Your task to perform on an android device: open sync settings in chrome Image 0: 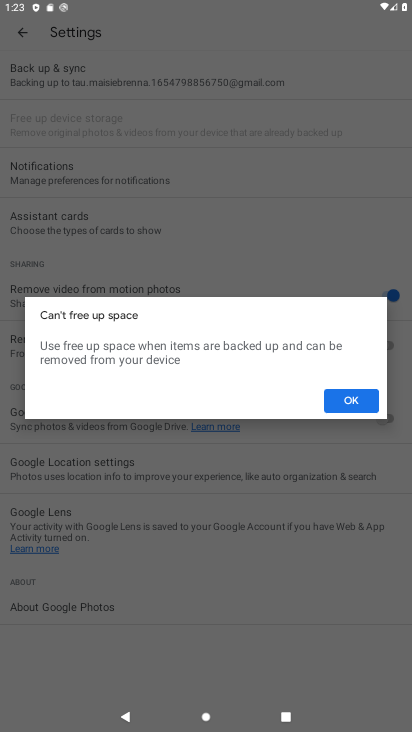
Step 0: click (358, 405)
Your task to perform on an android device: open sync settings in chrome Image 1: 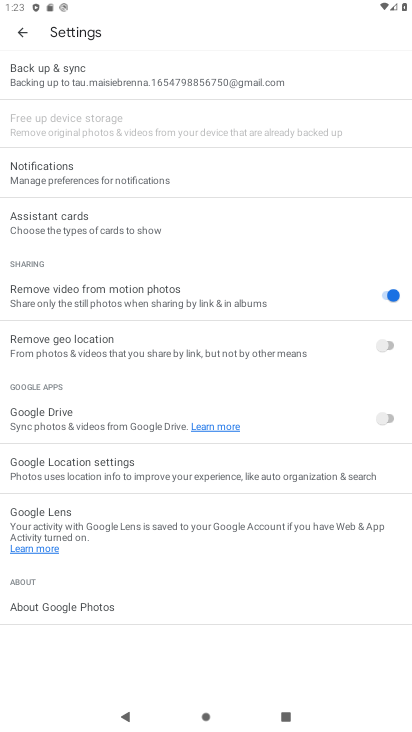
Step 1: press home button
Your task to perform on an android device: open sync settings in chrome Image 2: 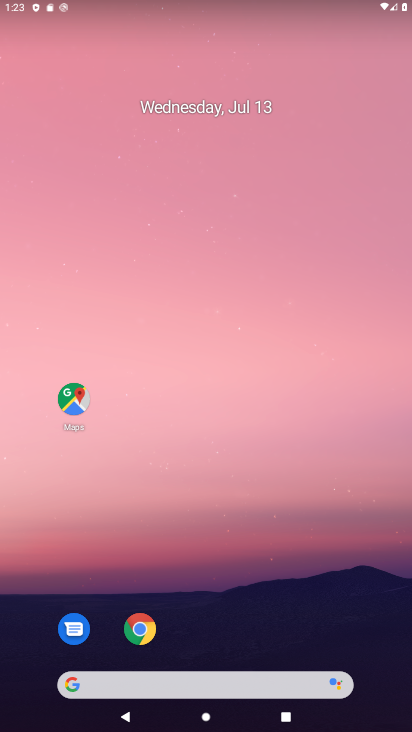
Step 2: drag from (323, 649) to (324, 133)
Your task to perform on an android device: open sync settings in chrome Image 3: 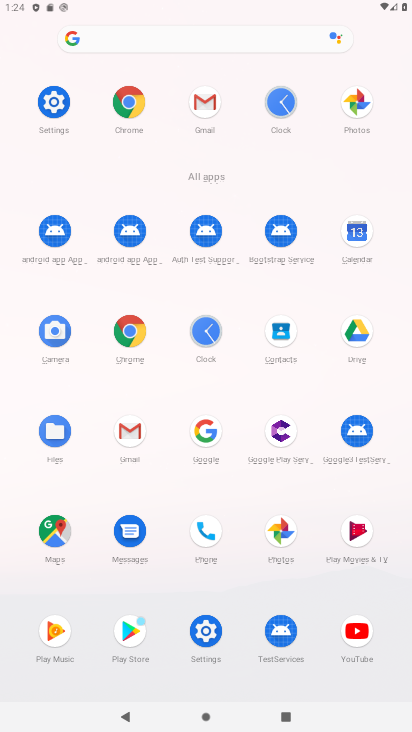
Step 3: click (121, 139)
Your task to perform on an android device: open sync settings in chrome Image 4: 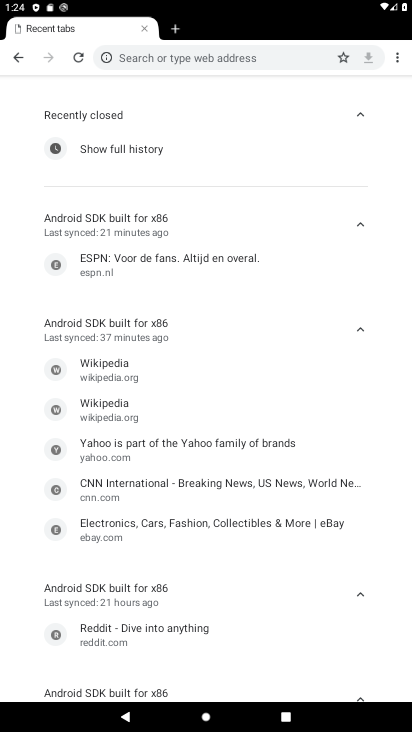
Step 4: click (391, 66)
Your task to perform on an android device: open sync settings in chrome Image 5: 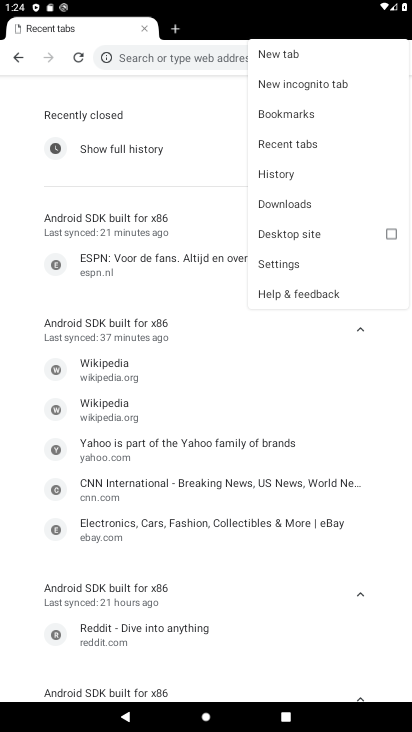
Step 5: click (270, 257)
Your task to perform on an android device: open sync settings in chrome Image 6: 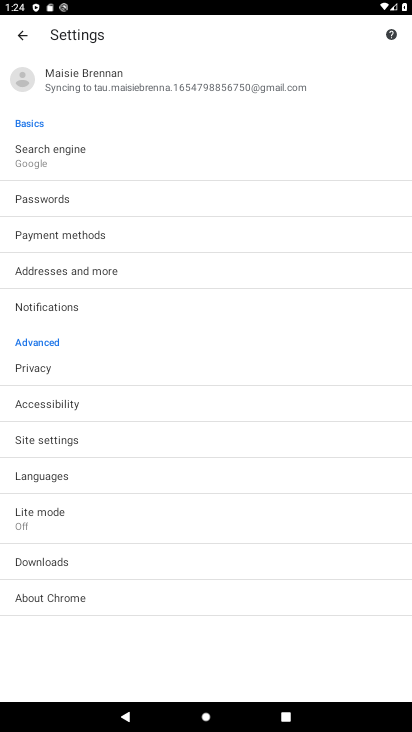
Step 6: click (120, 93)
Your task to perform on an android device: open sync settings in chrome Image 7: 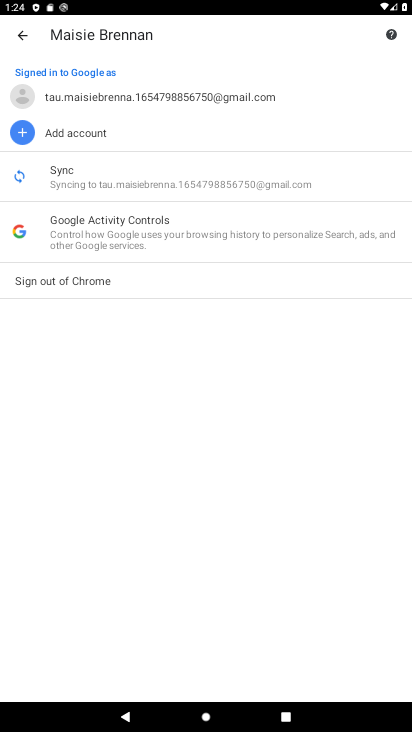
Step 7: task complete